Your task to perform on an android device: Do I have any events this weekend? Image 0: 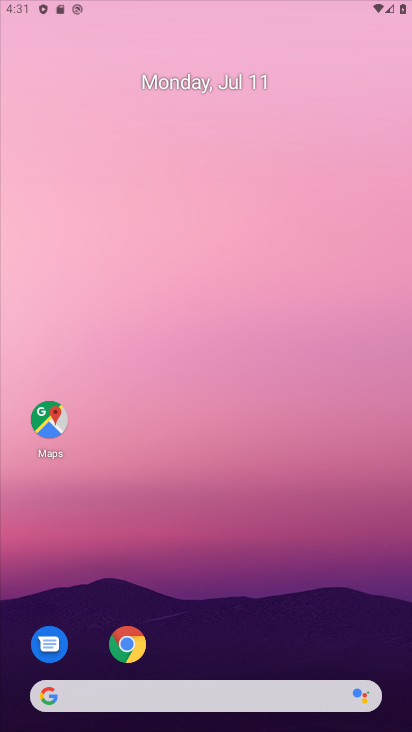
Step 0: drag from (228, 649) to (265, 14)
Your task to perform on an android device: Do I have any events this weekend? Image 1: 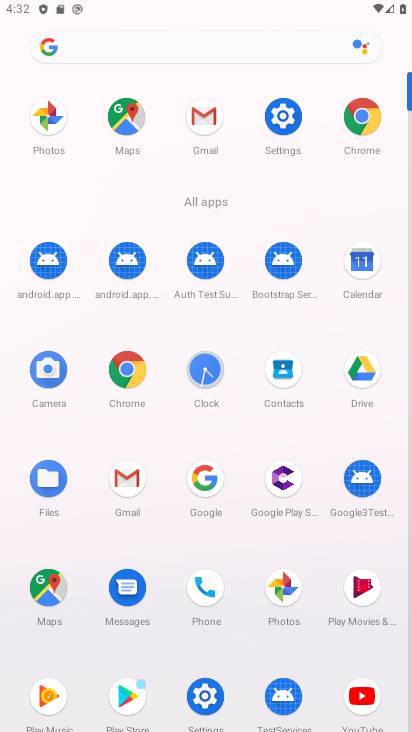
Step 1: click (364, 262)
Your task to perform on an android device: Do I have any events this weekend? Image 2: 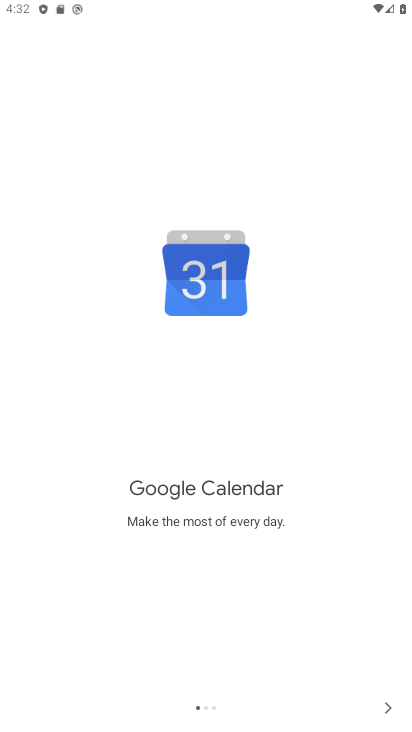
Step 2: press home button
Your task to perform on an android device: Do I have any events this weekend? Image 3: 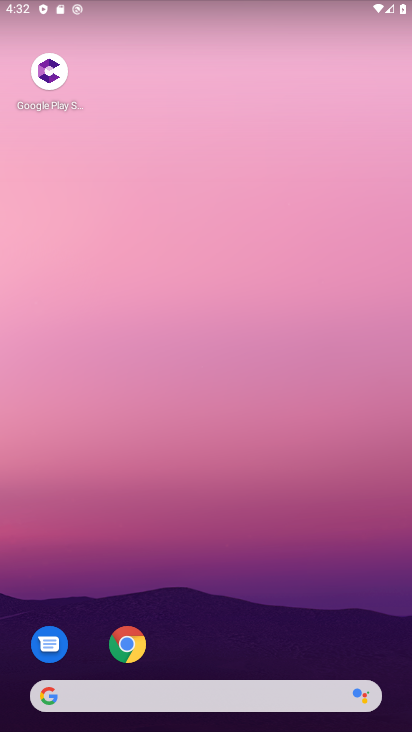
Step 3: drag from (259, 643) to (228, 362)
Your task to perform on an android device: Do I have any events this weekend? Image 4: 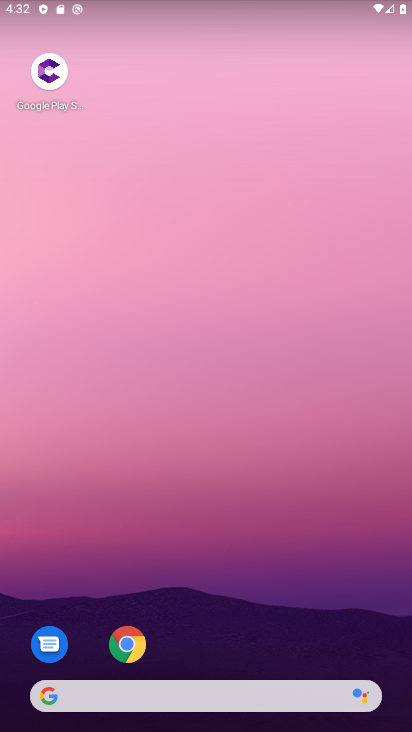
Step 4: drag from (227, 652) to (182, 131)
Your task to perform on an android device: Do I have any events this weekend? Image 5: 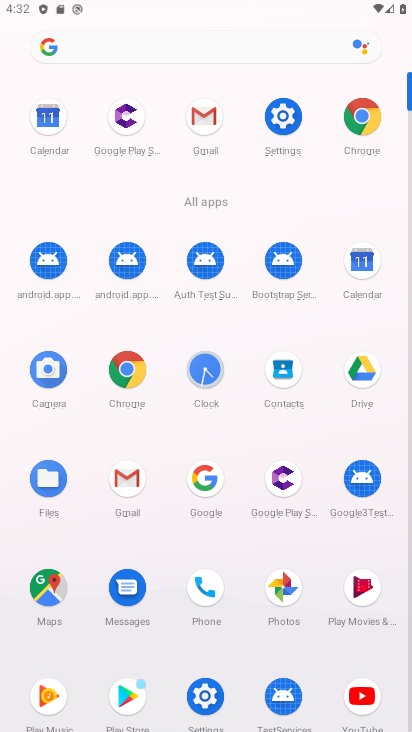
Step 5: click (353, 264)
Your task to perform on an android device: Do I have any events this weekend? Image 6: 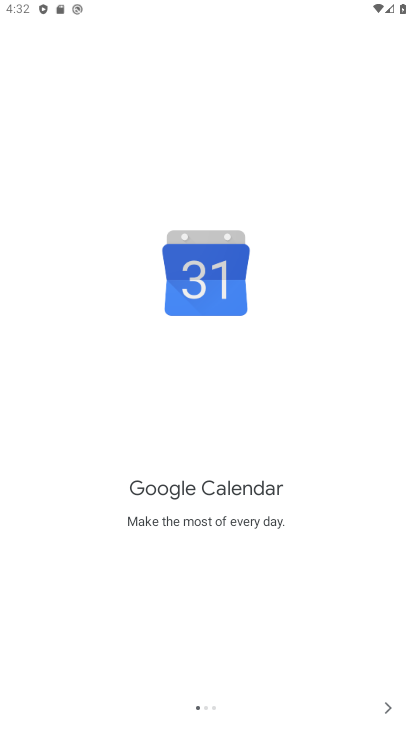
Step 6: drag from (243, 654) to (127, 631)
Your task to perform on an android device: Do I have any events this weekend? Image 7: 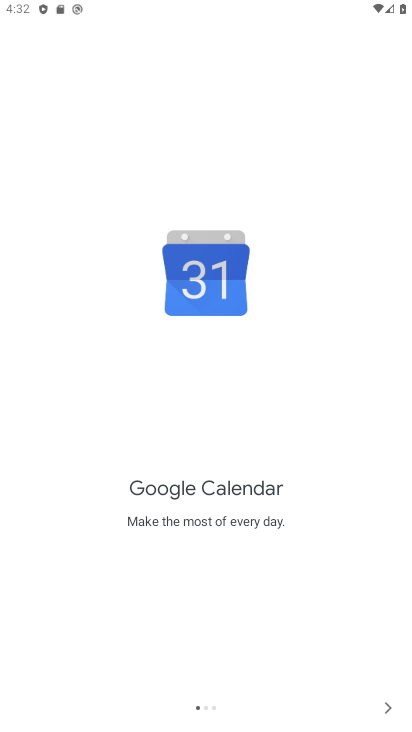
Step 7: click (390, 714)
Your task to perform on an android device: Do I have any events this weekend? Image 8: 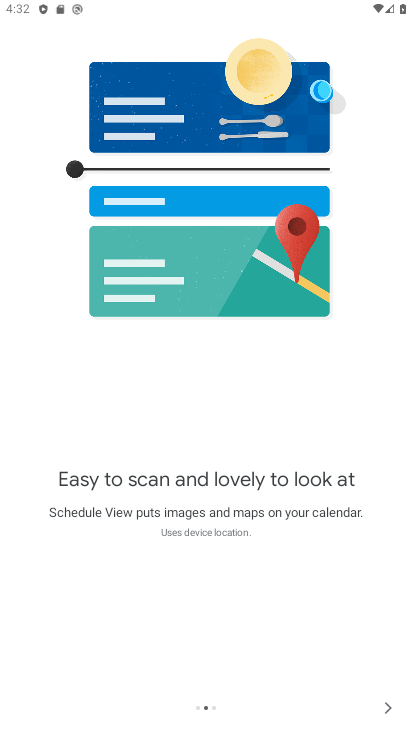
Step 8: click (387, 711)
Your task to perform on an android device: Do I have any events this weekend? Image 9: 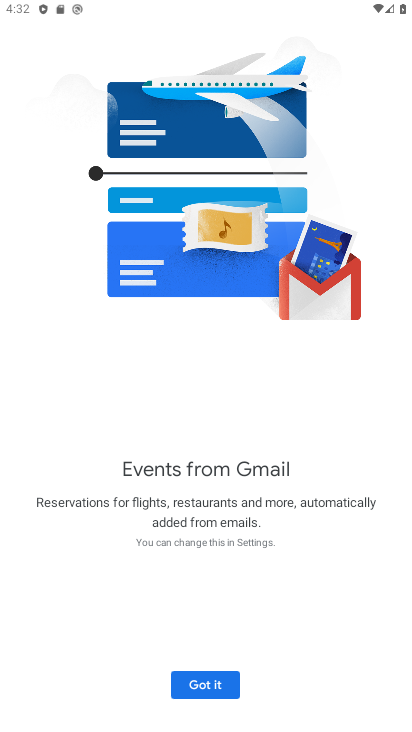
Step 9: click (222, 681)
Your task to perform on an android device: Do I have any events this weekend? Image 10: 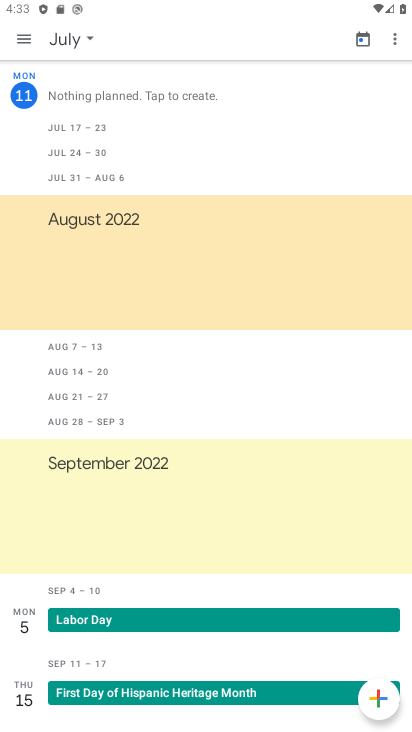
Step 10: click (19, 48)
Your task to perform on an android device: Do I have any events this weekend? Image 11: 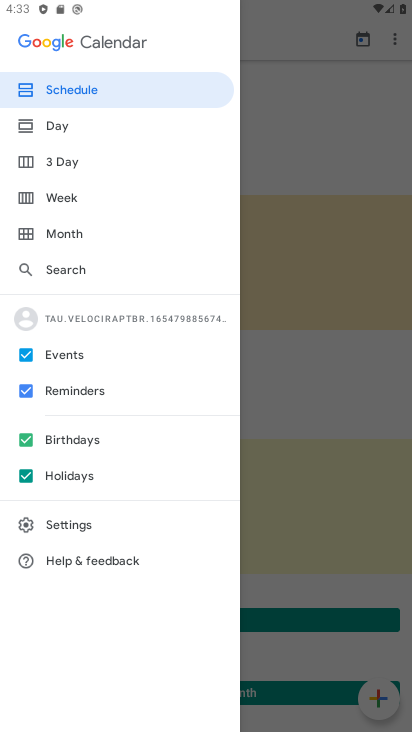
Step 11: click (80, 357)
Your task to perform on an android device: Do I have any events this weekend? Image 12: 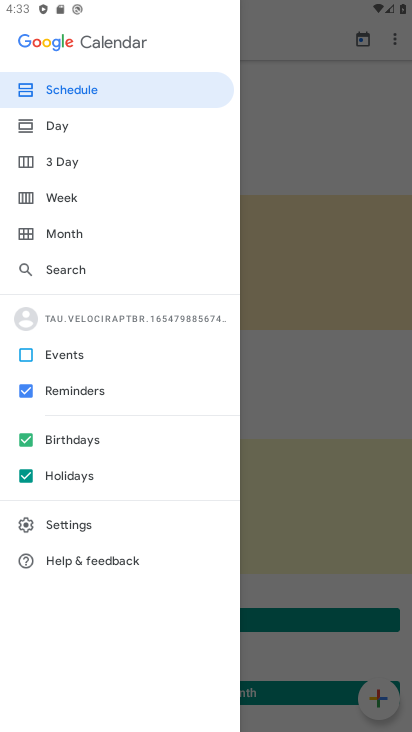
Step 12: click (77, 357)
Your task to perform on an android device: Do I have any events this weekend? Image 13: 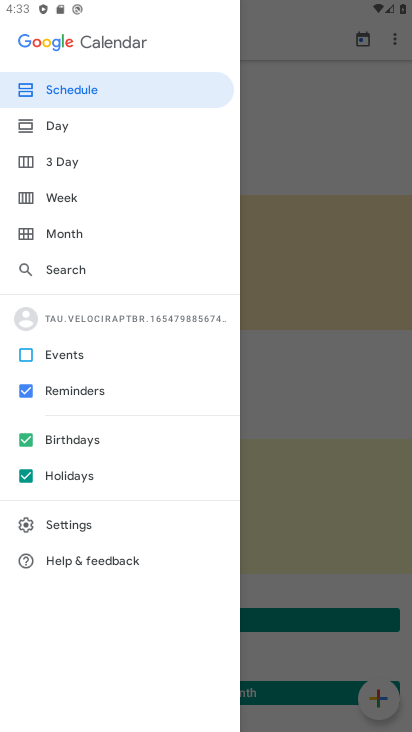
Step 13: click (20, 354)
Your task to perform on an android device: Do I have any events this weekend? Image 14: 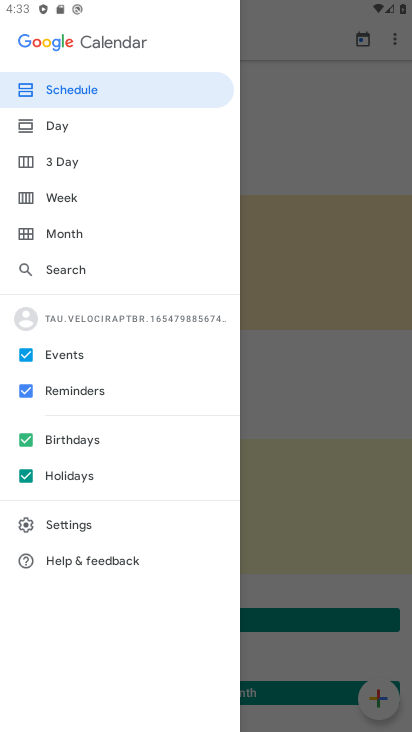
Step 14: click (311, 247)
Your task to perform on an android device: Do I have any events this weekend? Image 15: 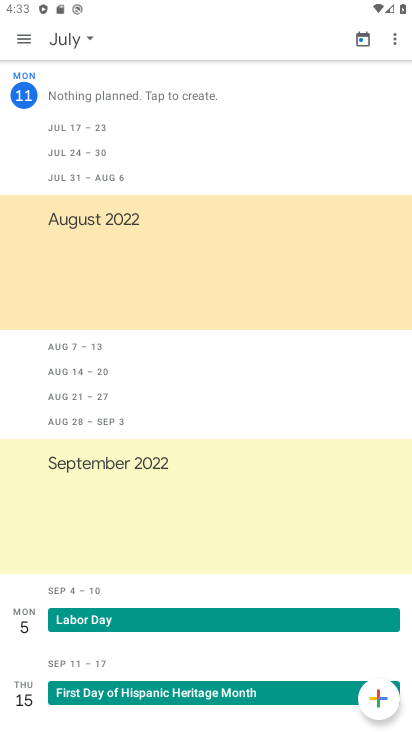
Step 15: click (21, 102)
Your task to perform on an android device: Do I have any events this weekend? Image 16: 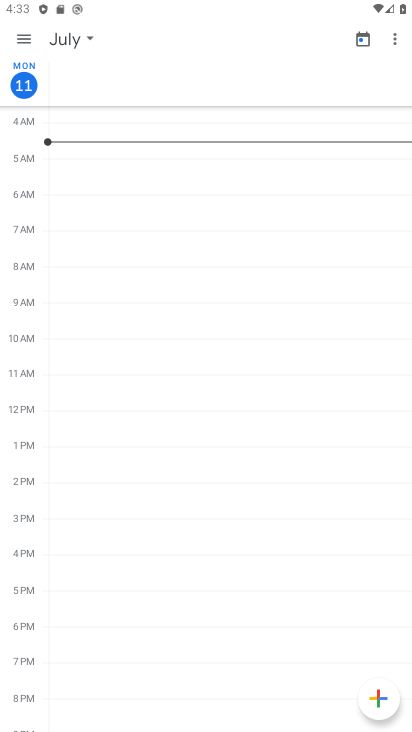
Step 16: click (89, 39)
Your task to perform on an android device: Do I have any events this weekend? Image 17: 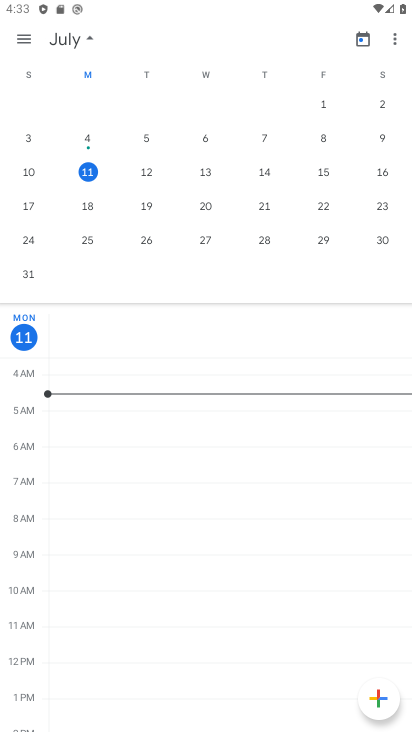
Step 17: click (94, 167)
Your task to perform on an android device: Do I have any events this weekend? Image 18: 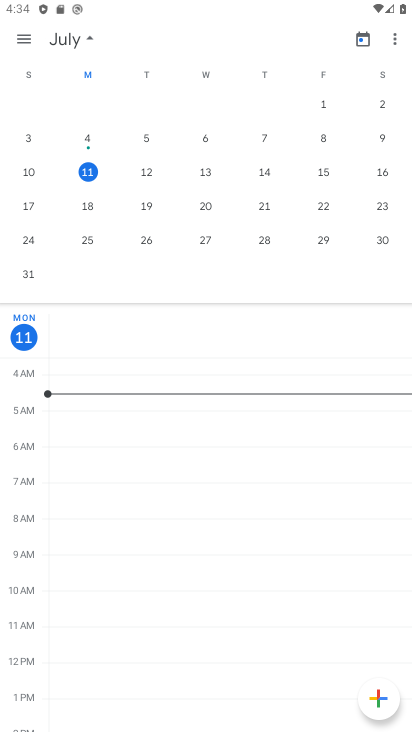
Step 18: task complete